Your task to perform on an android device: turn on location history Image 0: 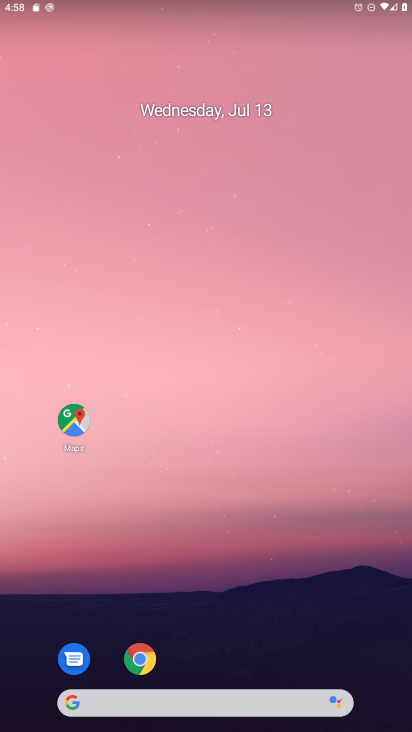
Step 0: drag from (237, 579) to (177, 59)
Your task to perform on an android device: turn on location history Image 1: 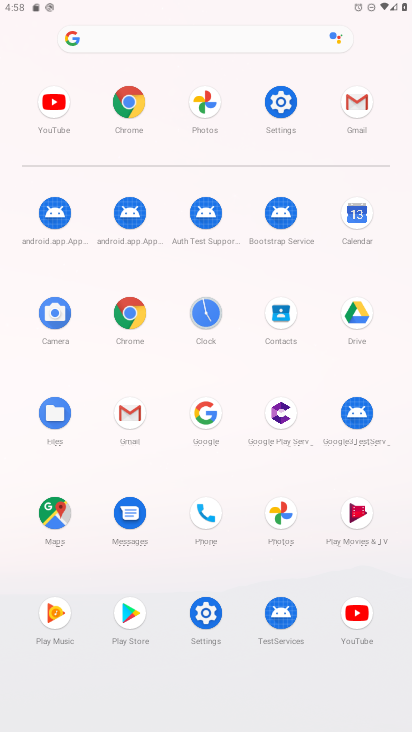
Step 1: click (286, 106)
Your task to perform on an android device: turn on location history Image 2: 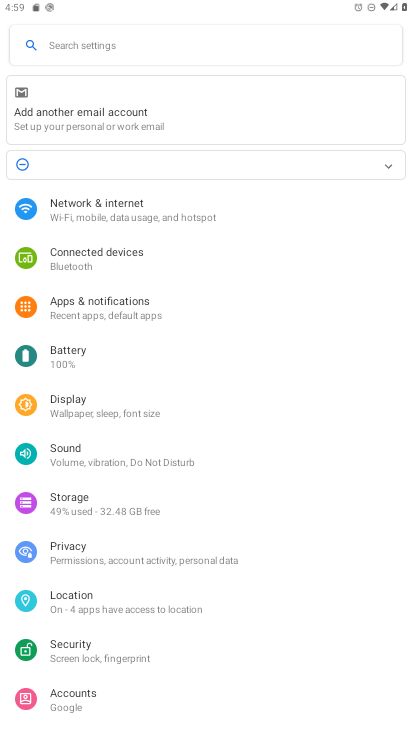
Step 2: click (100, 600)
Your task to perform on an android device: turn on location history Image 3: 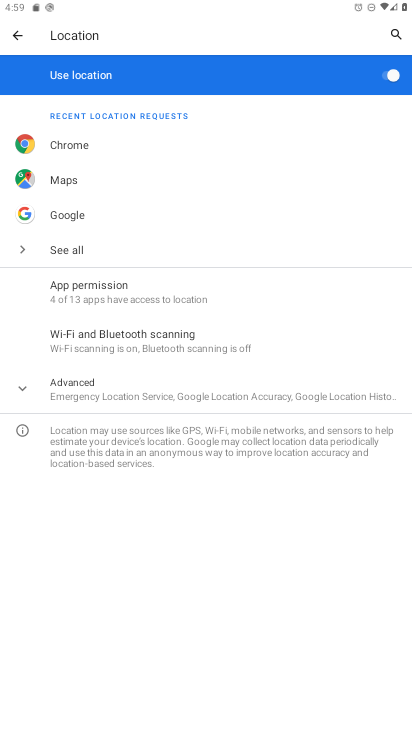
Step 3: click (122, 381)
Your task to perform on an android device: turn on location history Image 4: 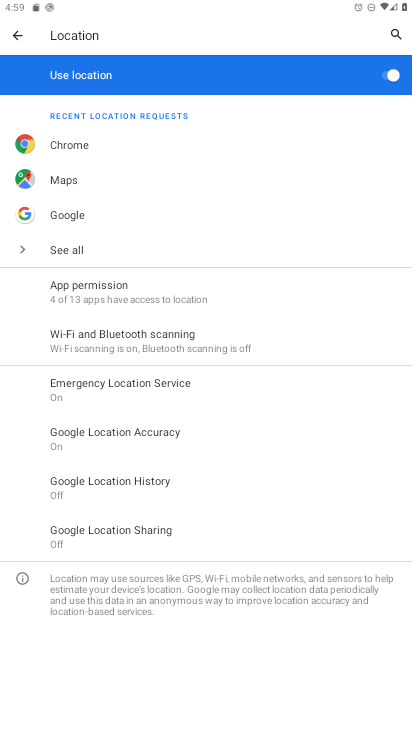
Step 4: click (120, 474)
Your task to perform on an android device: turn on location history Image 5: 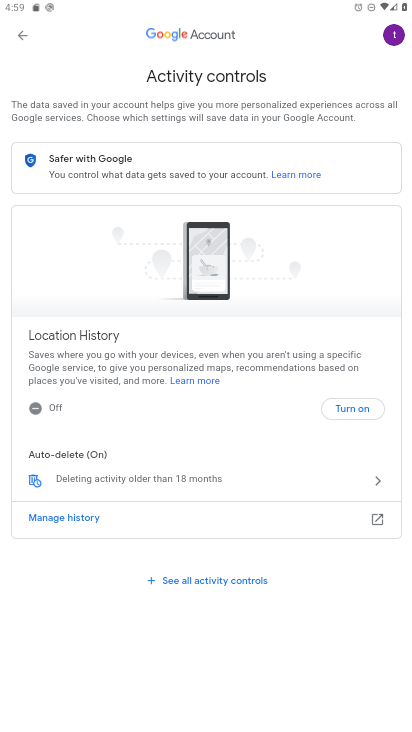
Step 5: click (319, 417)
Your task to perform on an android device: turn on location history Image 6: 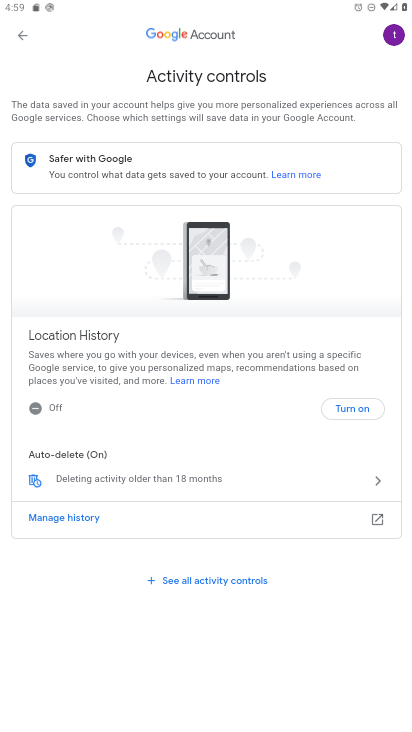
Step 6: click (339, 408)
Your task to perform on an android device: turn on location history Image 7: 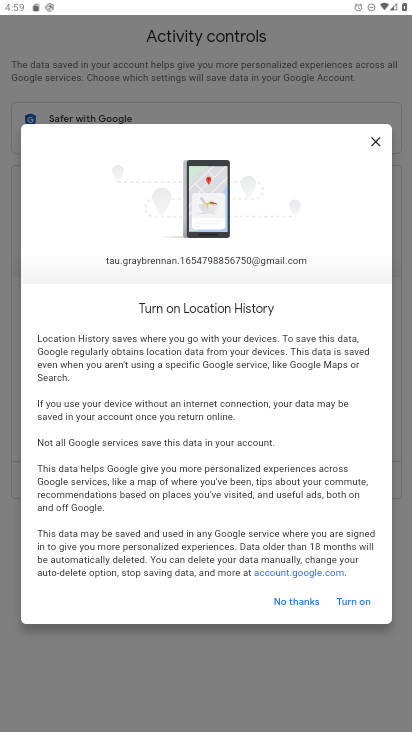
Step 7: click (357, 598)
Your task to perform on an android device: turn on location history Image 8: 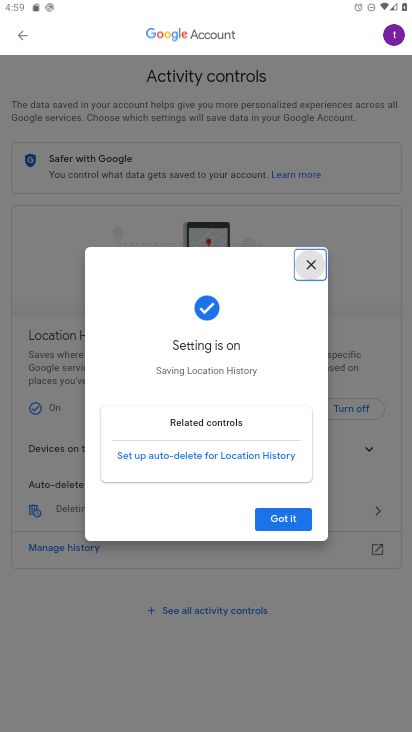
Step 8: task complete